Your task to perform on an android device: allow cookies in the chrome app Image 0: 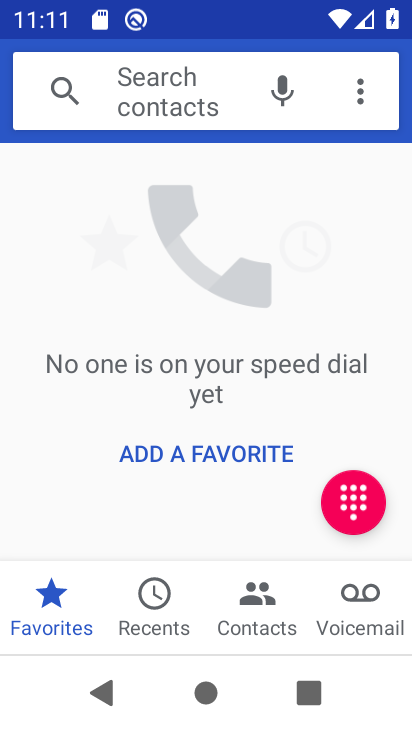
Step 0: press home button
Your task to perform on an android device: allow cookies in the chrome app Image 1: 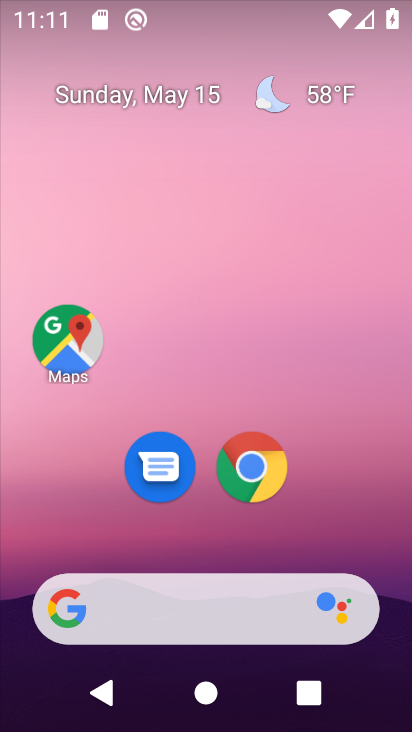
Step 1: click (245, 463)
Your task to perform on an android device: allow cookies in the chrome app Image 2: 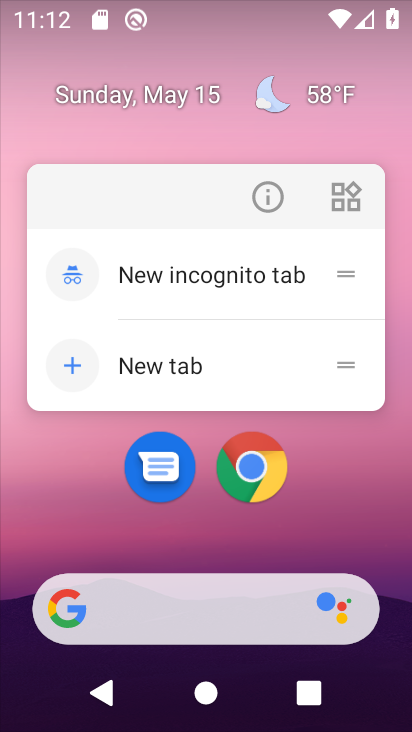
Step 2: click (256, 460)
Your task to perform on an android device: allow cookies in the chrome app Image 3: 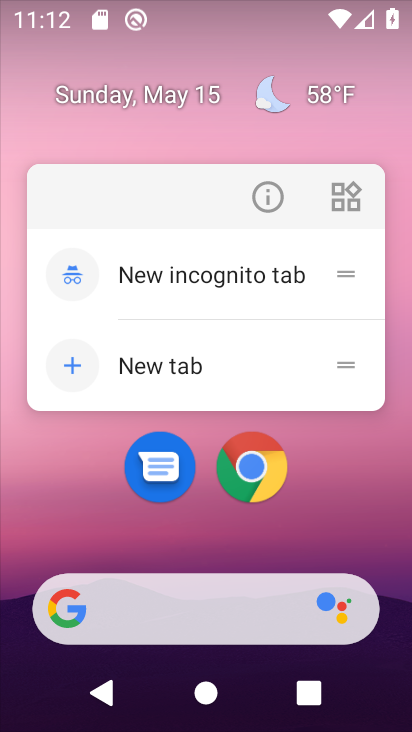
Step 3: click (255, 462)
Your task to perform on an android device: allow cookies in the chrome app Image 4: 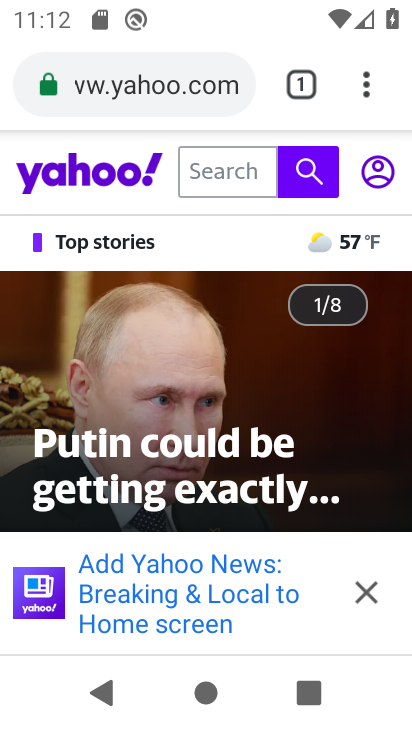
Step 4: click (366, 79)
Your task to perform on an android device: allow cookies in the chrome app Image 5: 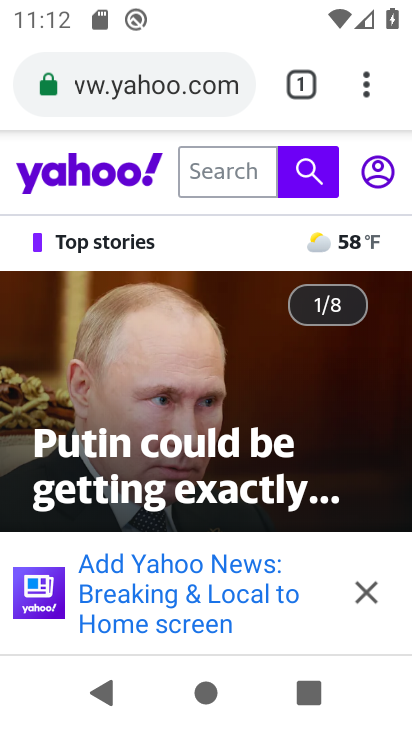
Step 5: click (364, 81)
Your task to perform on an android device: allow cookies in the chrome app Image 6: 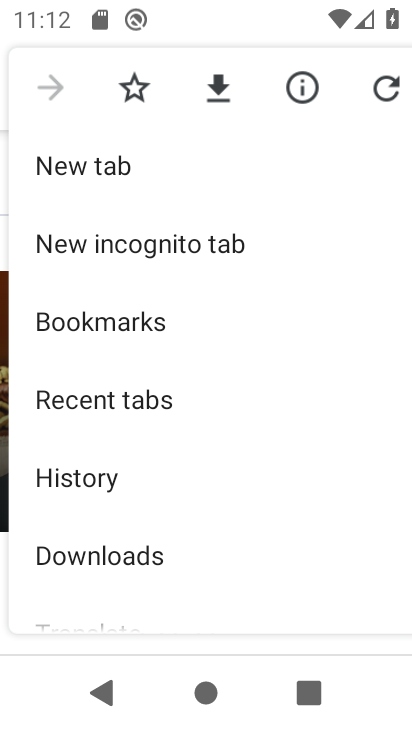
Step 6: drag from (200, 557) to (203, 84)
Your task to perform on an android device: allow cookies in the chrome app Image 7: 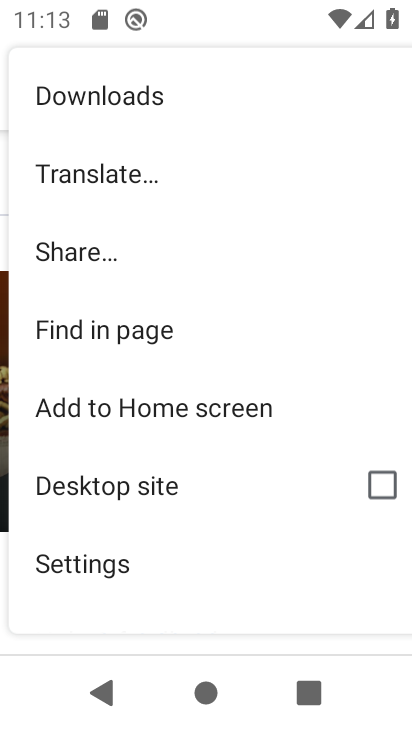
Step 7: click (139, 561)
Your task to perform on an android device: allow cookies in the chrome app Image 8: 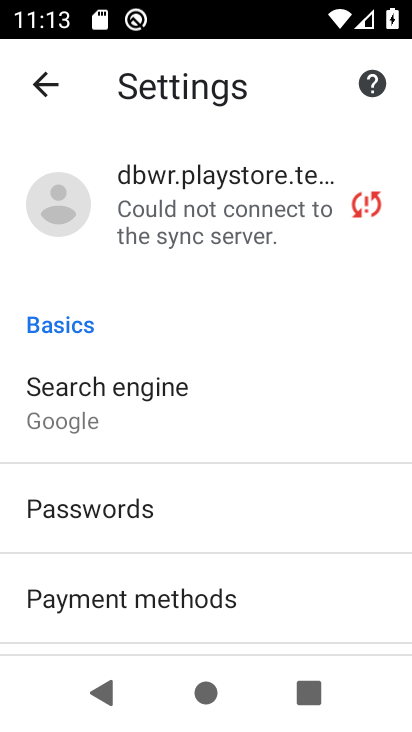
Step 8: drag from (198, 607) to (212, 132)
Your task to perform on an android device: allow cookies in the chrome app Image 9: 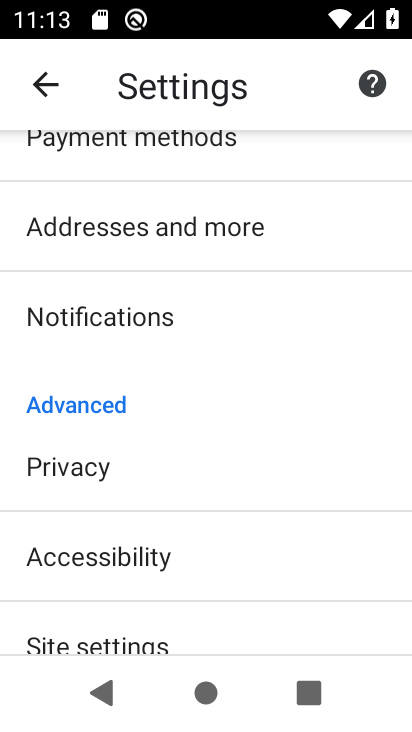
Step 9: click (189, 629)
Your task to perform on an android device: allow cookies in the chrome app Image 10: 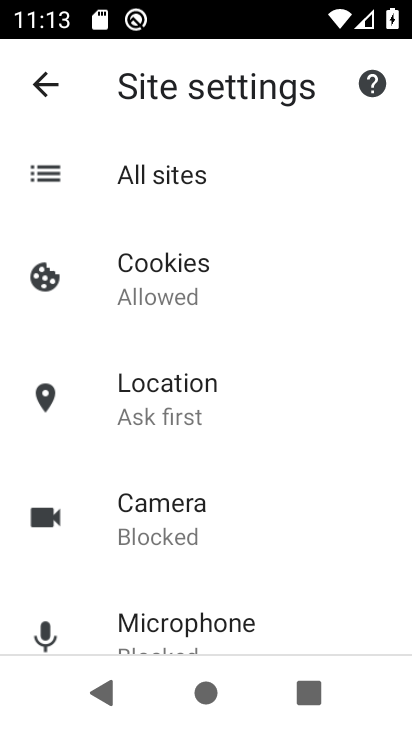
Step 10: click (192, 262)
Your task to perform on an android device: allow cookies in the chrome app Image 11: 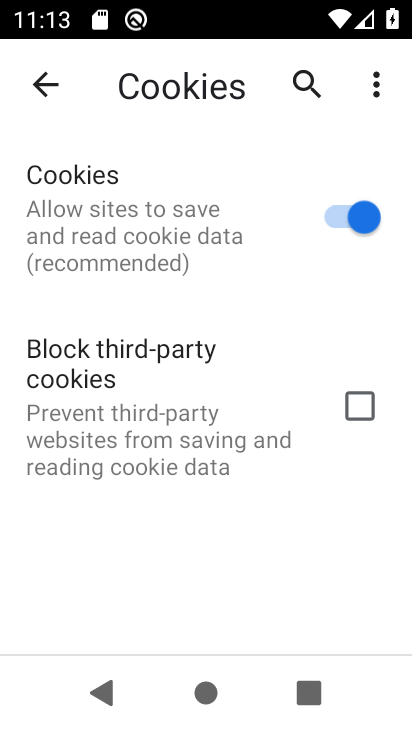
Step 11: task complete